Your task to perform on an android device: turn on javascript in the chrome app Image 0: 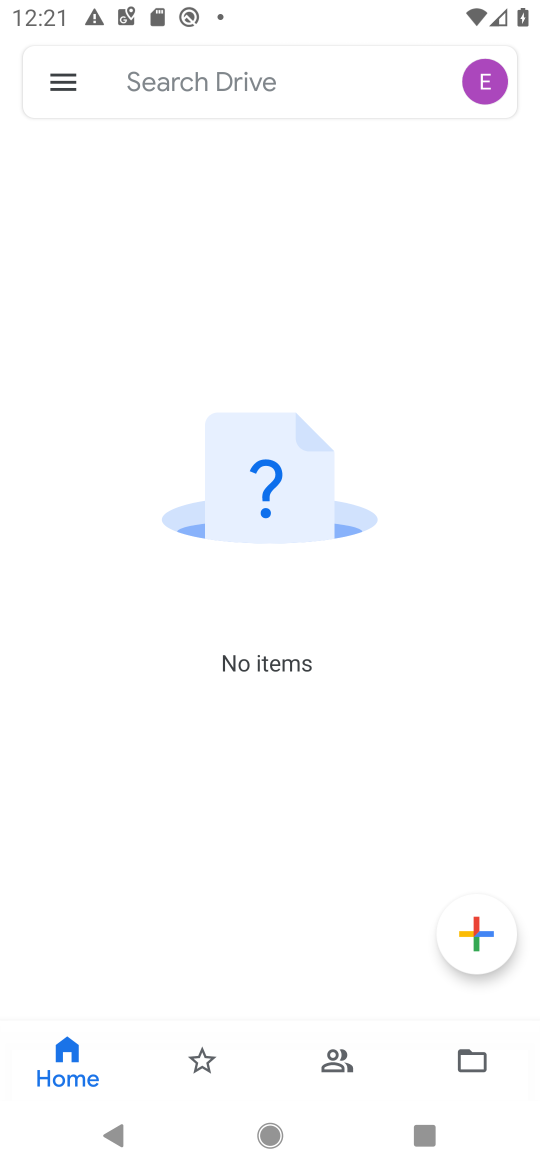
Step 0: press home button
Your task to perform on an android device: turn on javascript in the chrome app Image 1: 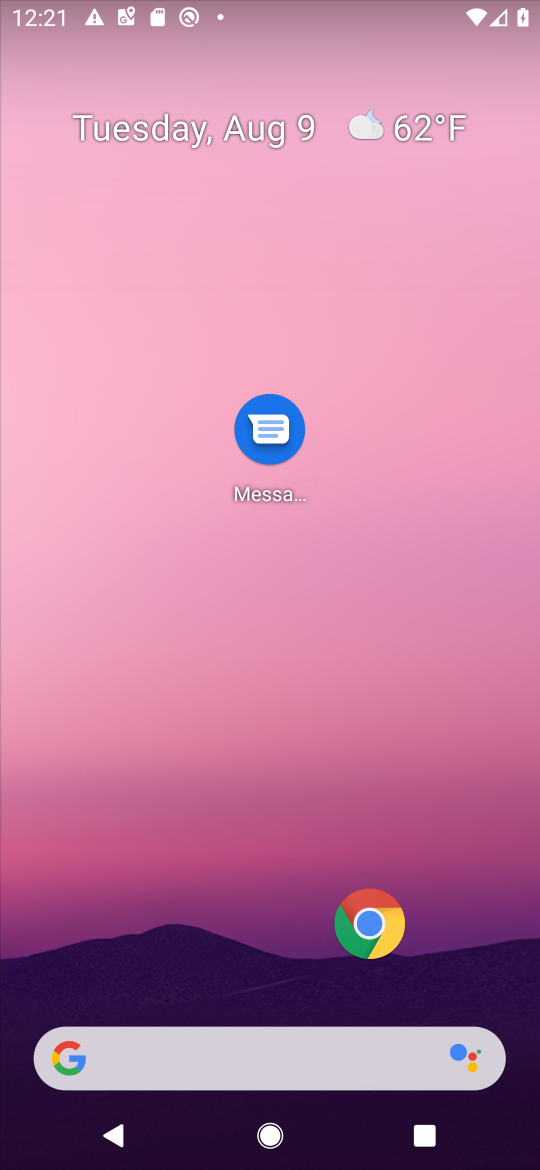
Step 1: click (378, 918)
Your task to perform on an android device: turn on javascript in the chrome app Image 2: 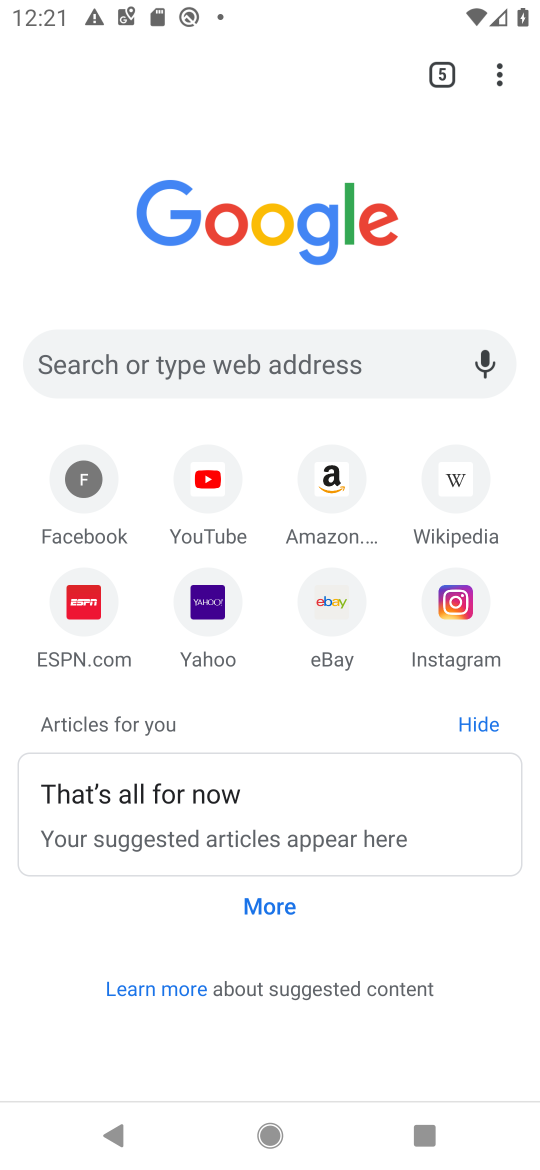
Step 2: click (497, 79)
Your task to perform on an android device: turn on javascript in the chrome app Image 3: 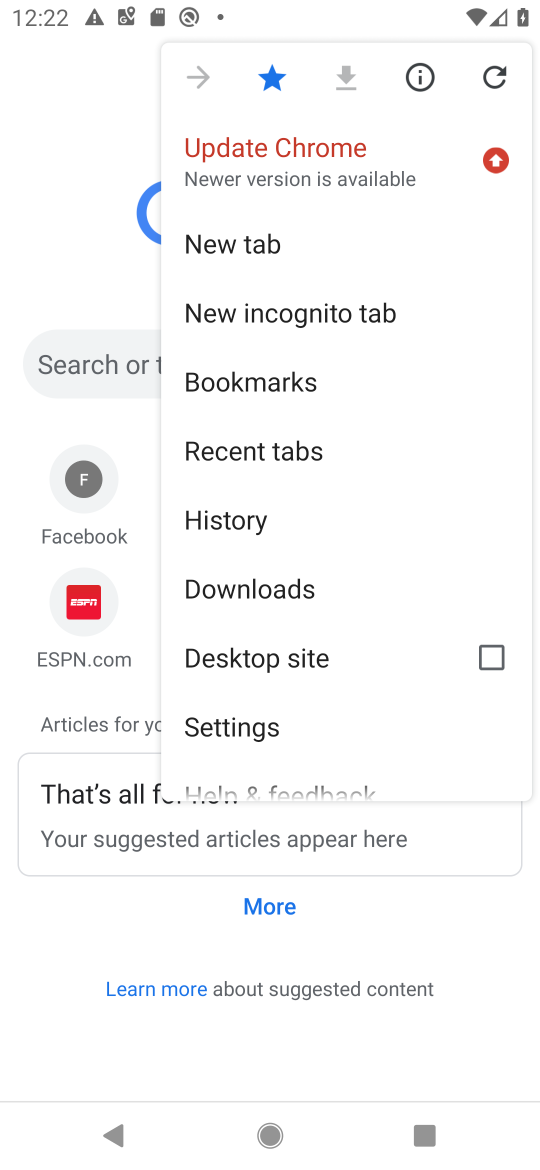
Step 3: click (237, 727)
Your task to perform on an android device: turn on javascript in the chrome app Image 4: 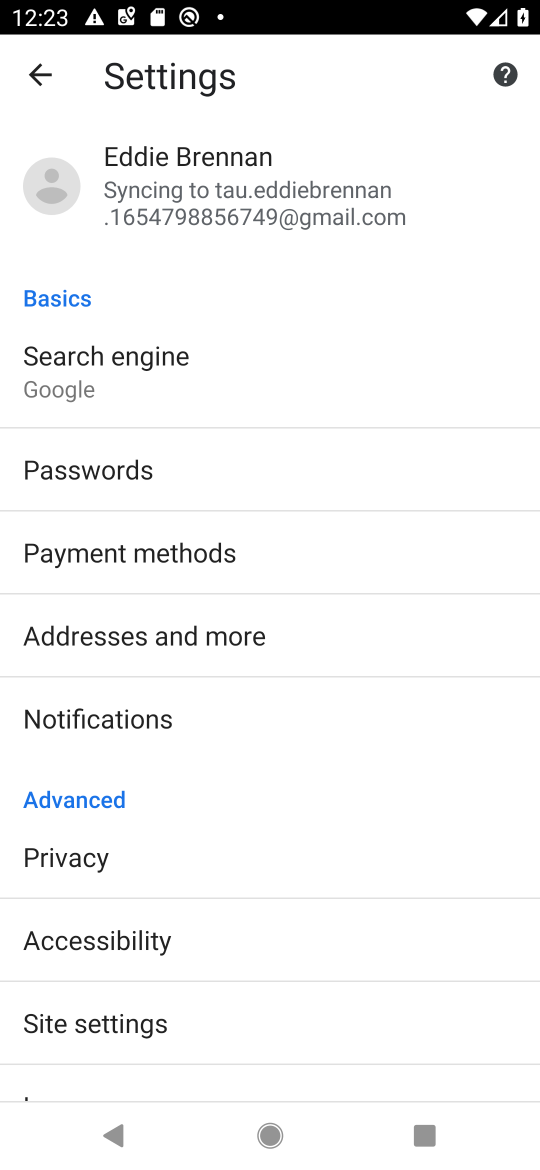
Step 4: click (86, 1021)
Your task to perform on an android device: turn on javascript in the chrome app Image 5: 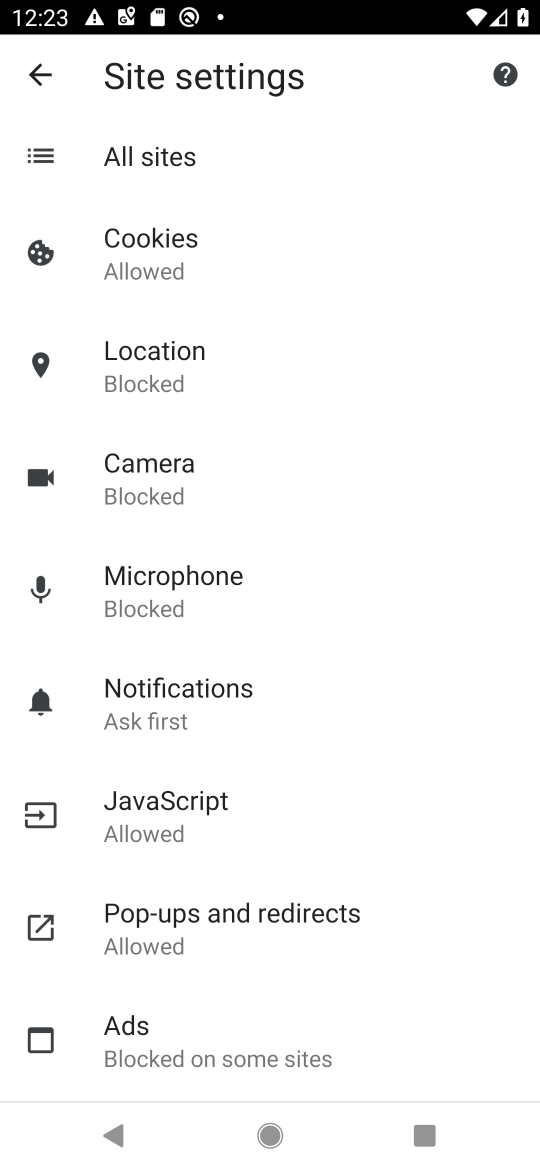
Step 5: click (169, 798)
Your task to perform on an android device: turn on javascript in the chrome app Image 6: 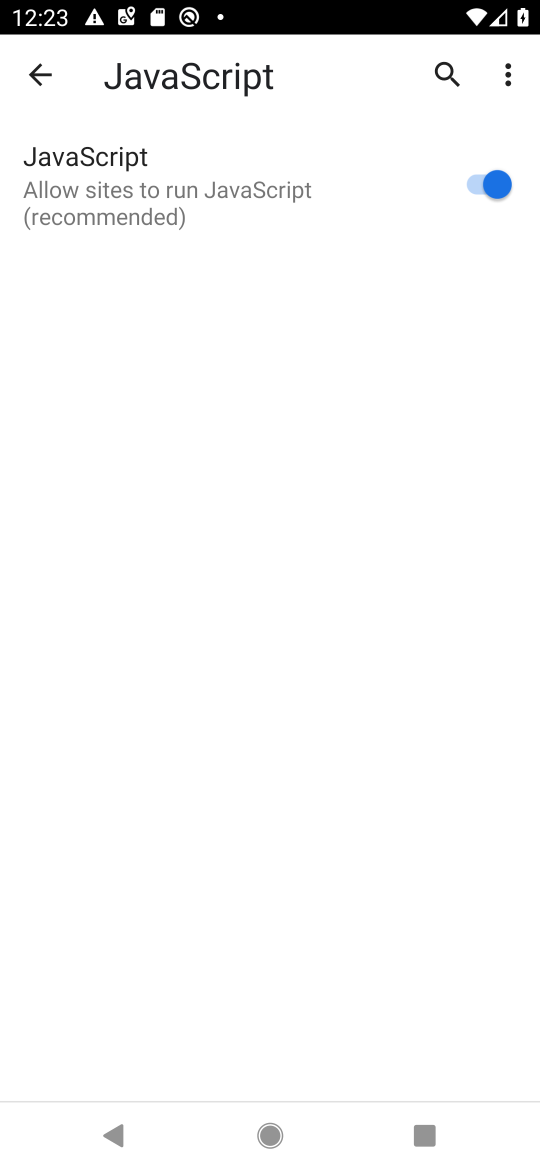
Step 6: task complete